Your task to perform on an android device: open the mobile data screen to see how much data has been used Image 0: 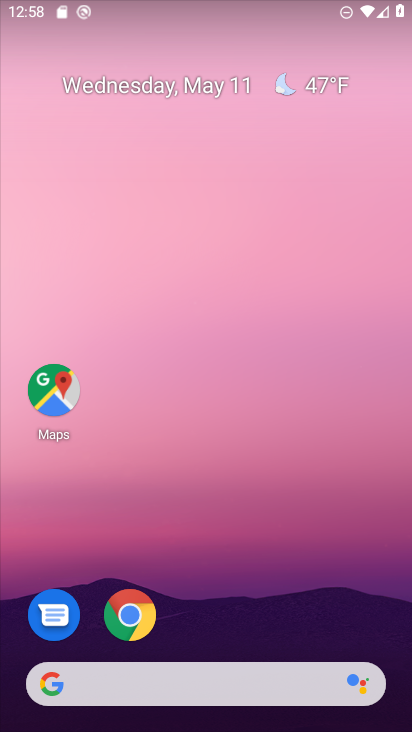
Step 0: drag from (221, 533) to (175, 61)
Your task to perform on an android device: open the mobile data screen to see how much data has been used Image 1: 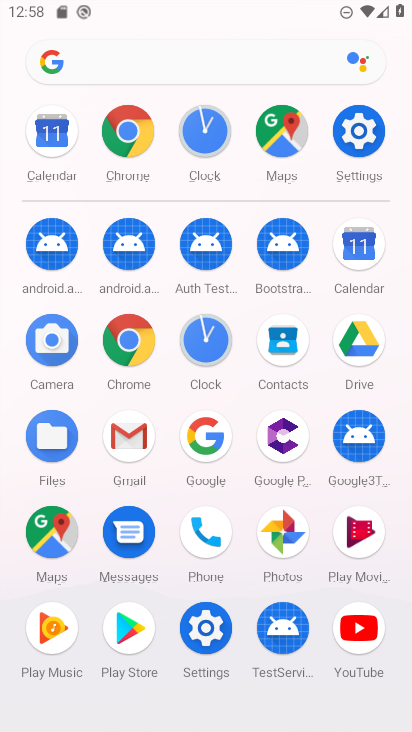
Step 1: click (360, 134)
Your task to perform on an android device: open the mobile data screen to see how much data has been used Image 2: 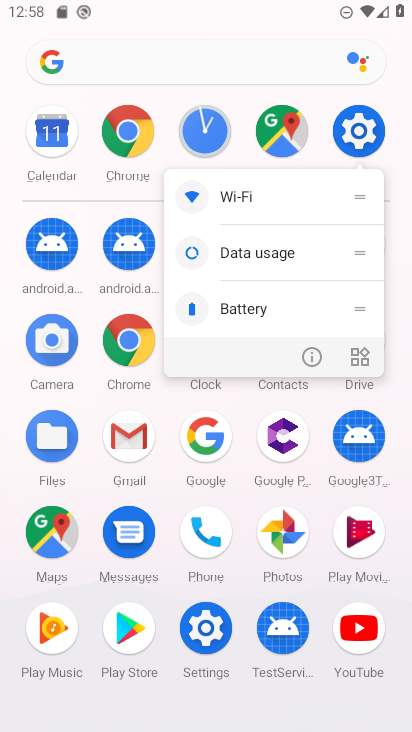
Step 2: click (360, 134)
Your task to perform on an android device: open the mobile data screen to see how much data has been used Image 3: 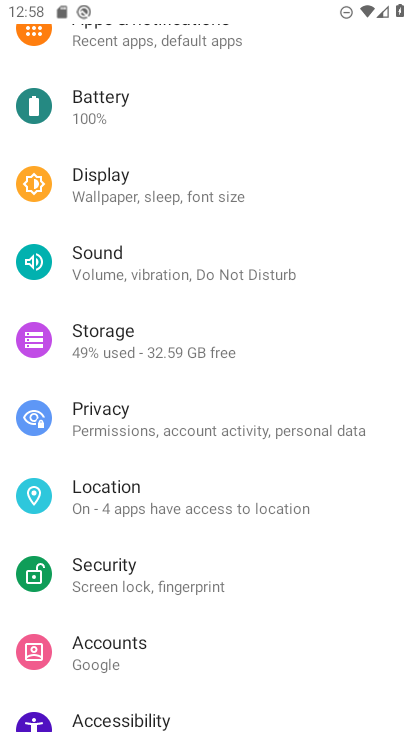
Step 3: drag from (165, 152) to (190, 501)
Your task to perform on an android device: open the mobile data screen to see how much data has been used Image 4: 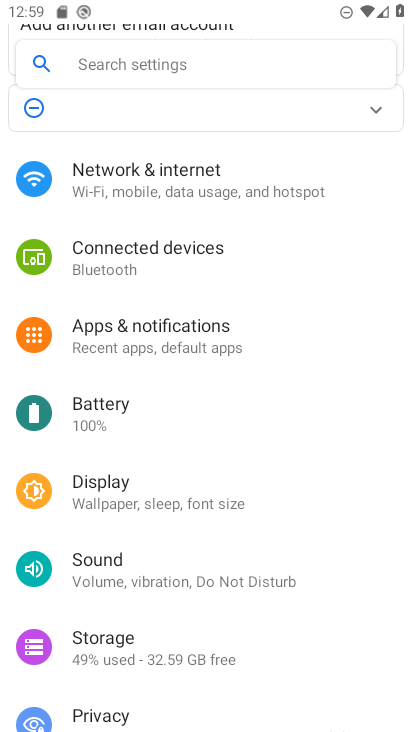
Step 4: click (122, 181)
Your task to perform on an android device: open the mobile data screen to see how much data has been used Image 5: 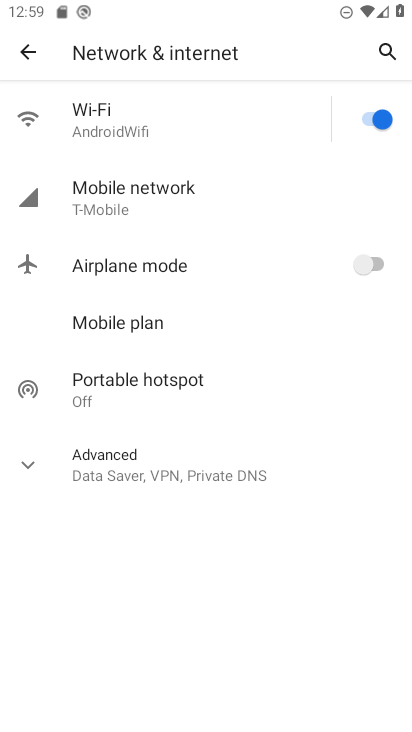
Step 5: click (154, 209)
Your task to perform on an android device: open the mobile data screen to see how much data has been used Image 6: 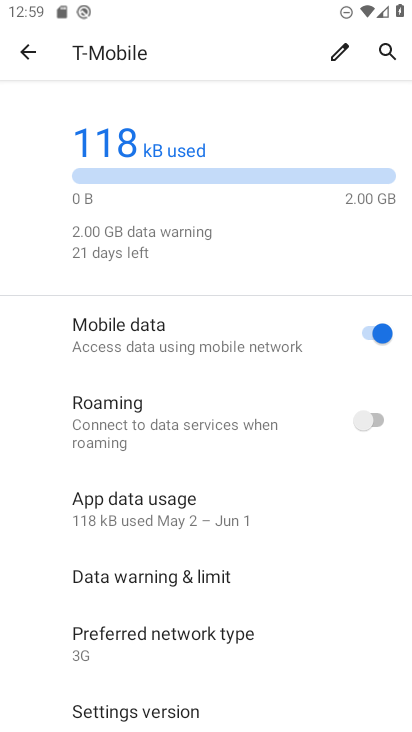
Step 6: task complete